Your task to perform on an android device: install app "LinkedIn" Image 0: 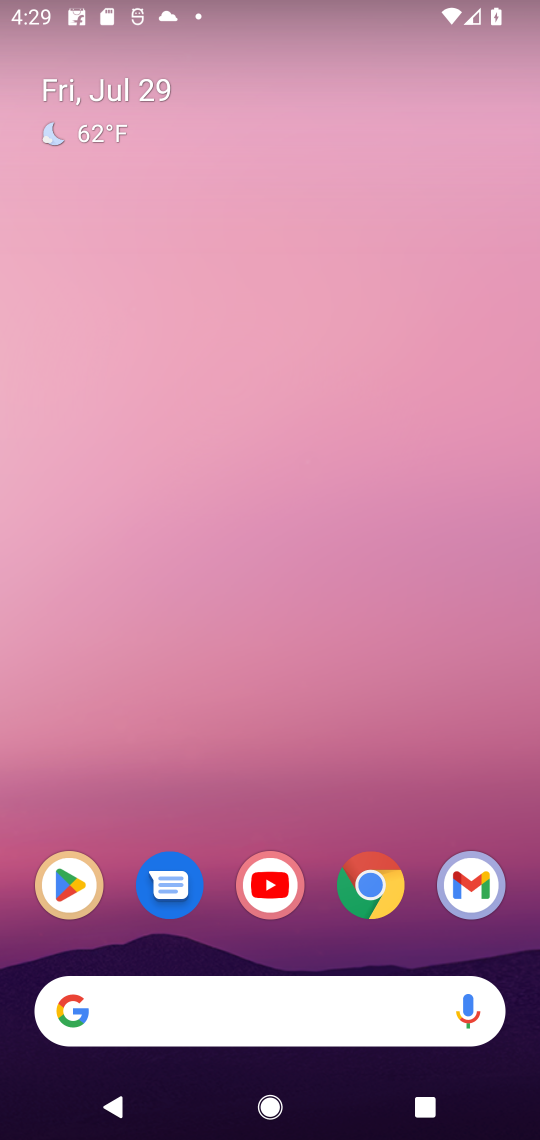
Step 0: click (93, 883)
Your task to perform on an android device: install app "LinkedIn" Image 1: 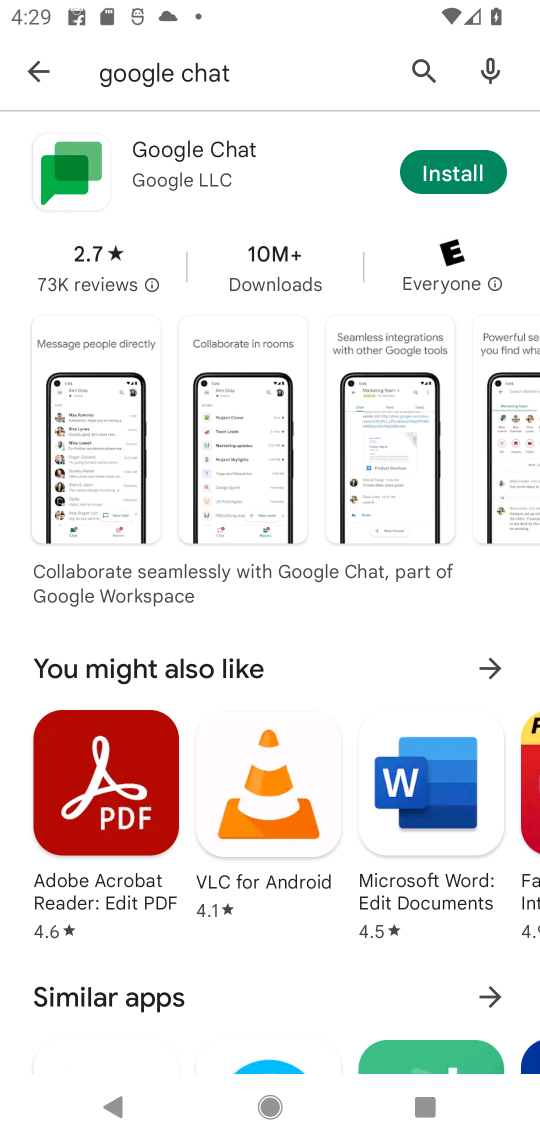
Step 1: click (429, 87)
Your task to perform on an android device: install app "LinkedIn" Image 2: 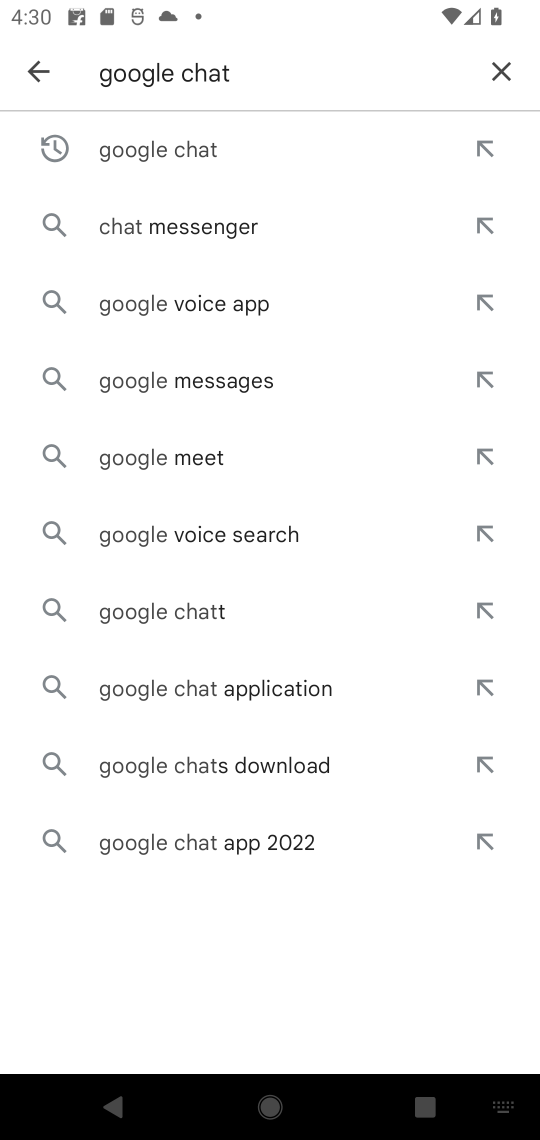
Step 2: click (502, 68)
Your task to perform on an android device: install app "LinkedIn" Image 3: 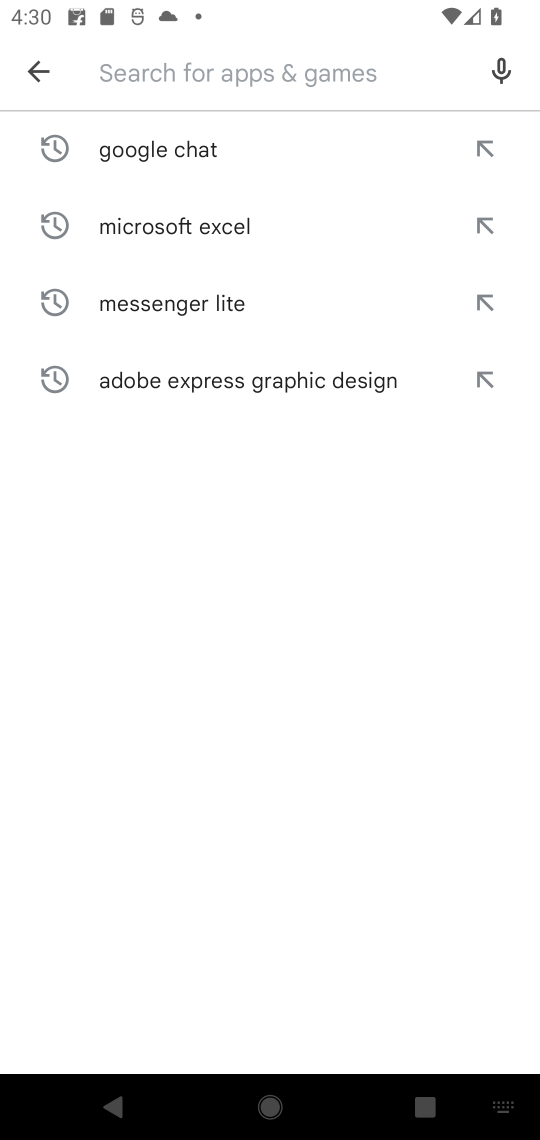
Step 3: type "LinkedIn"
Your task to perform on an android device: install app "LinkedIn" Image 4: 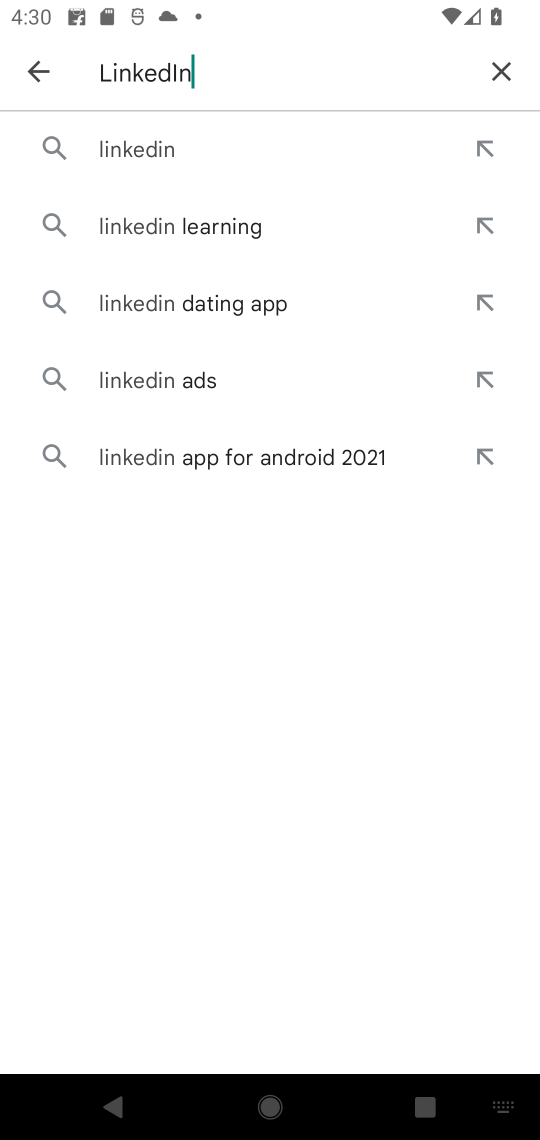
Step 4: click (134, 147)
Your task to perform on an android device: install app "LinkedIn" Image 5: 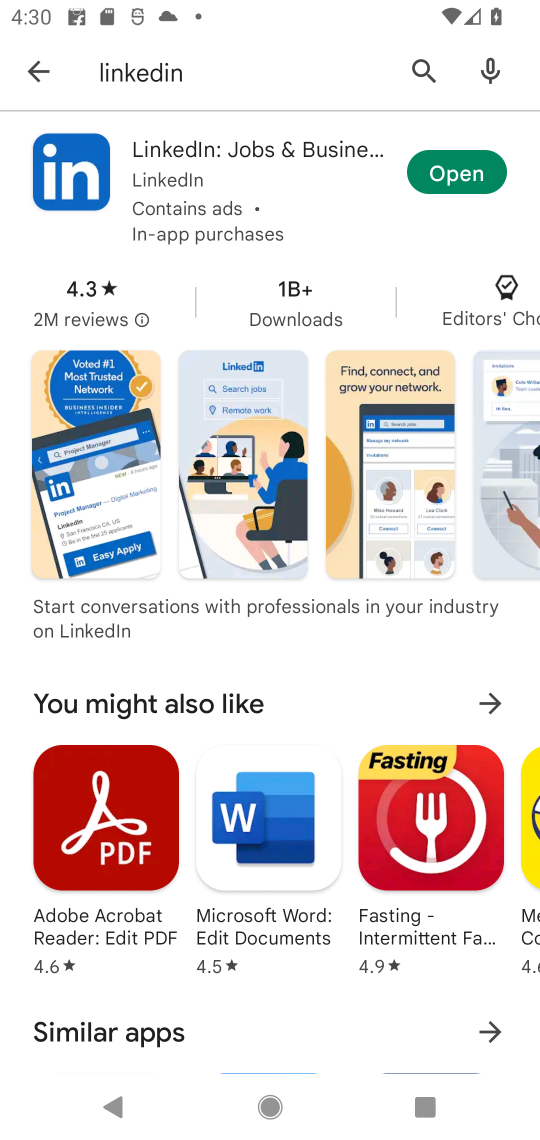
Step 5: click (238, 146)
Your task to perform on an android device: install app "LinkedIn" Image 6: 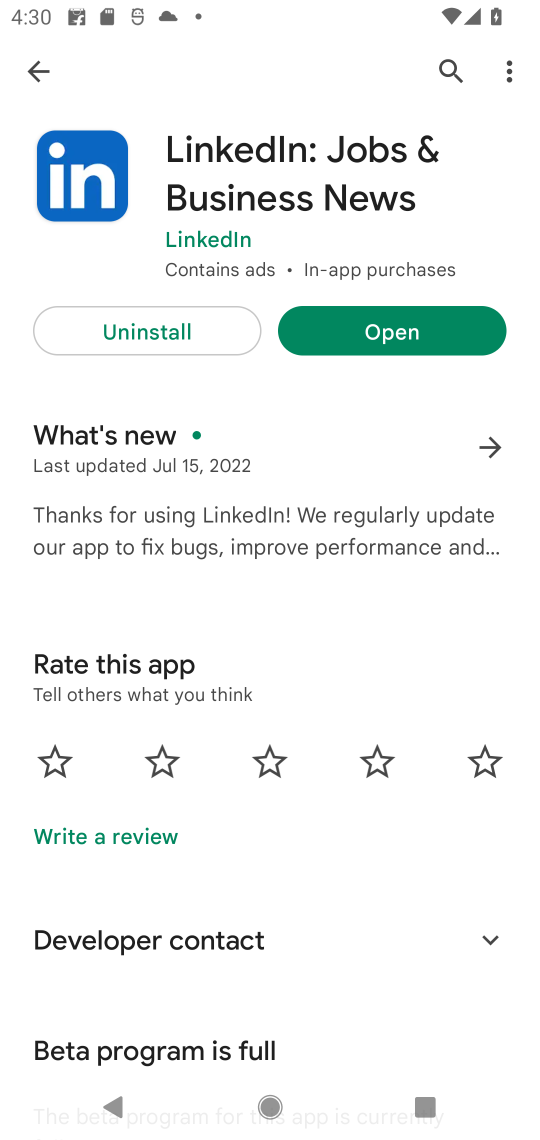
Step 6: task complete